Your task to perform on an android device: turn on data saver in the chrome app Image 0: 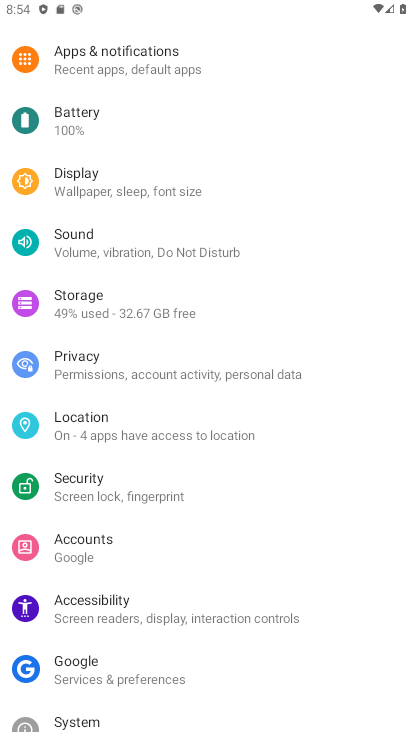
Step 0: press back button
Your task to perform on an android device: turn on data saver in the chrome app Image 1: 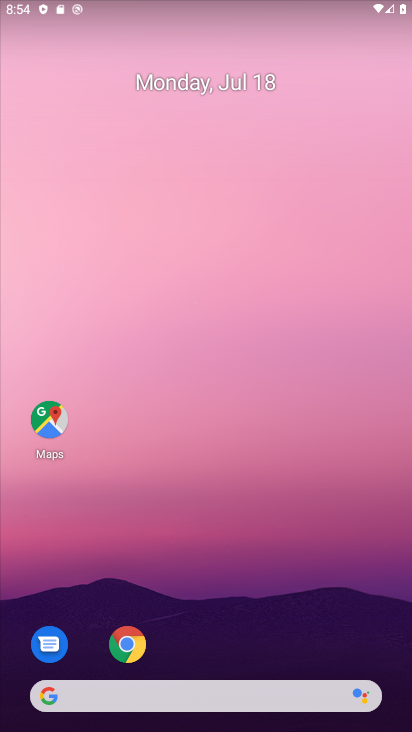
Step 1: click (134, 649)
Your task to perform on an android device: turn on data saver in the chrome app Image 2: 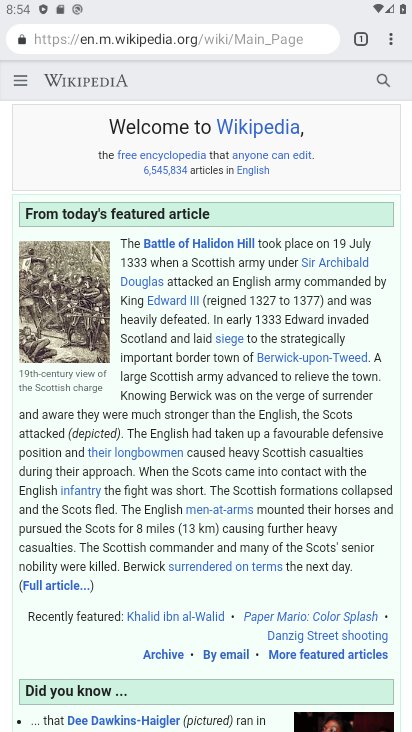
Step 2: drag from (392, 45) to (249, 473)
Your task to perform on an android device: turn on data saver in the chrome app Image 3: 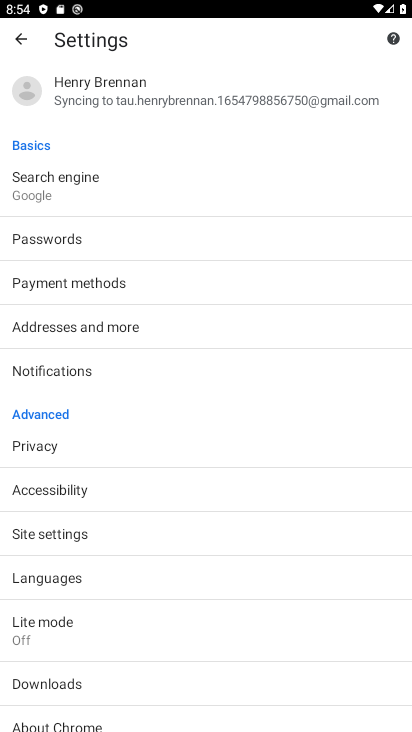
Step 3: click (63, 637)
Your task to perform on an android device: turn on data saver in the chrome app Image 4: 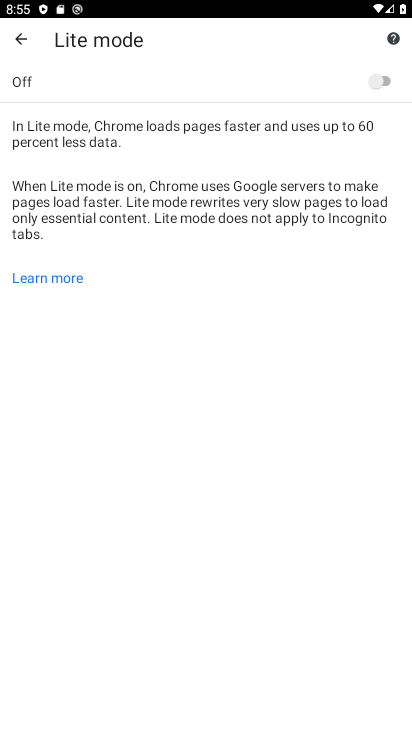
Step 4: click (382, 82)
Your task to perform on an android device: turn on data saver in the chrome app Image 5: 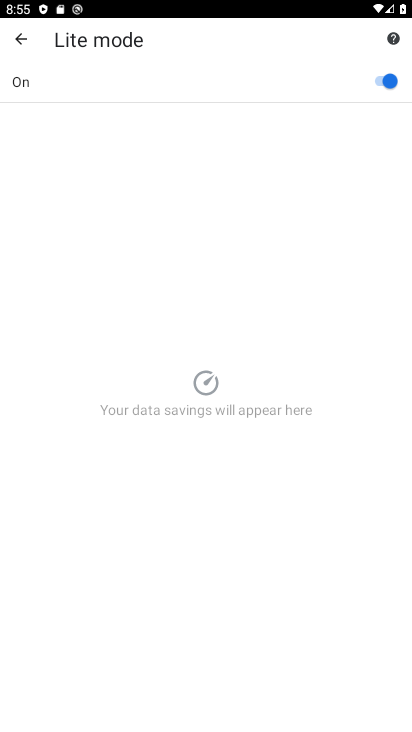
Step 5: task complete